Your task to perform on an android device: turn on translation in the chrome app Image 0: 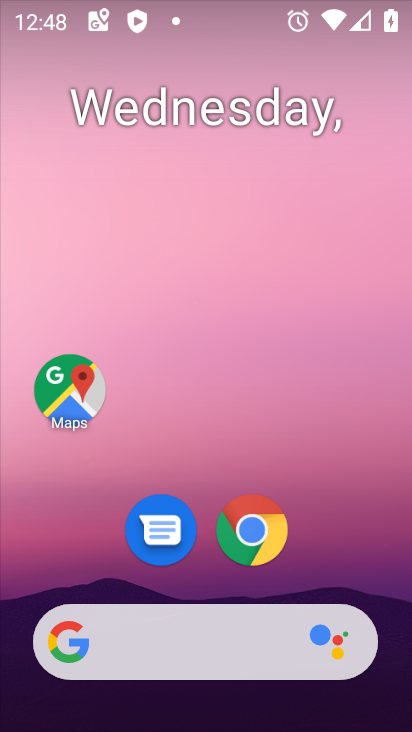
Step 0: click (262, 528)
Your task to perform on an android device: turn on translation in the chrome app Image 1: 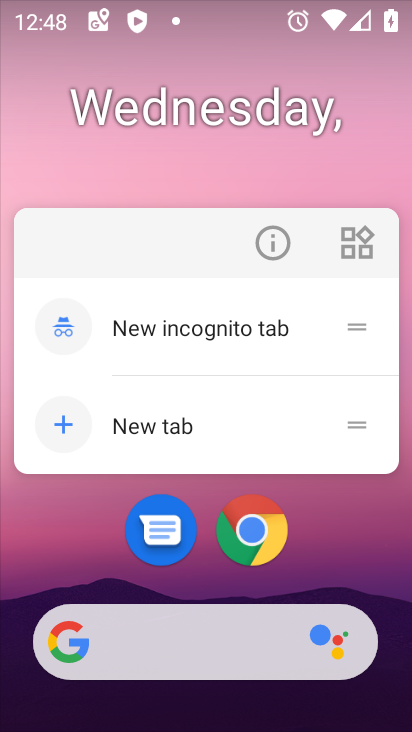
Step 1: click (273, 240)
Your task to perform on an android device: turn on translation in the chrome app Image 2: 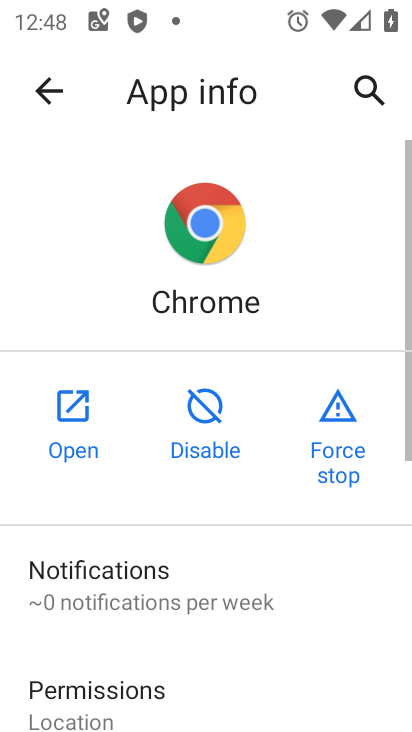
Step 2: click (71, 406)
Your task to perform on an android device: turn on translation in the chrome app Image 3: 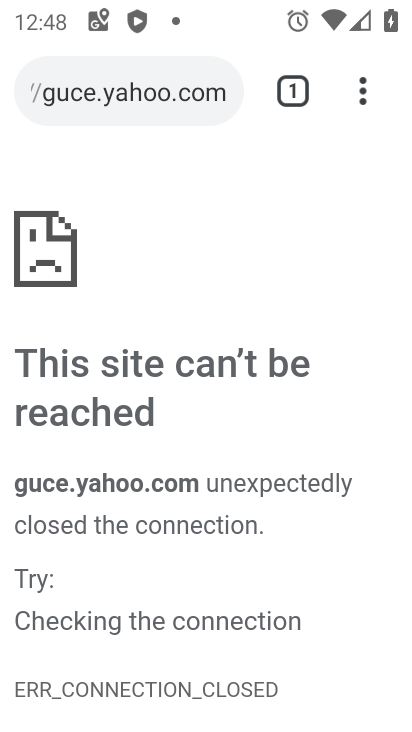
Step 3: task complete